Your task to perform on an android device: change text size in settings app Image 0: 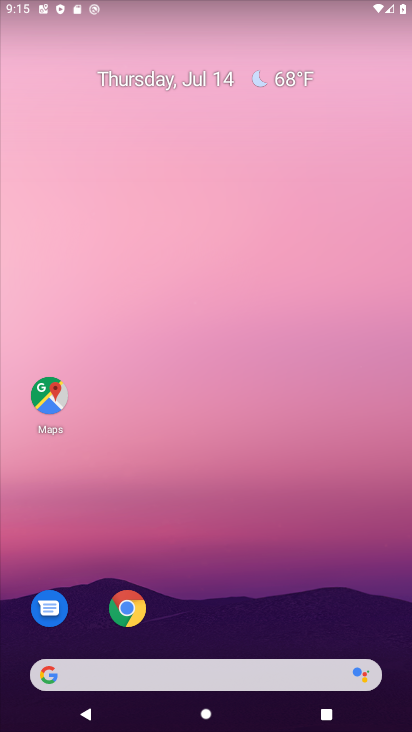
Step 0: drag from (216, 672) to (197, 59)
Your task to perform on an android device: change text size in settings app Image 1: 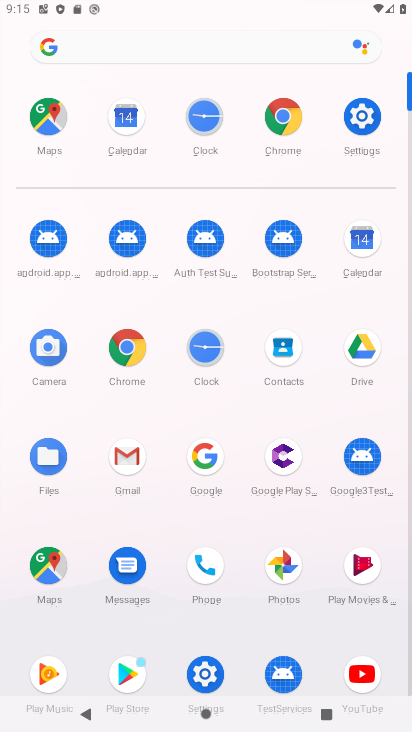
Step 1: click (201, 666)
Your task to perform on an android device: change text size in settings app Image 2: 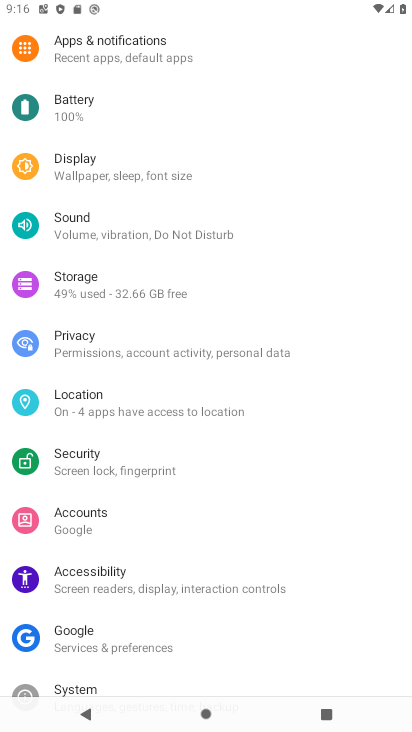
Step 2: click (92, 174)
Your task to perform on an android device: change text size in settings app Image 3: 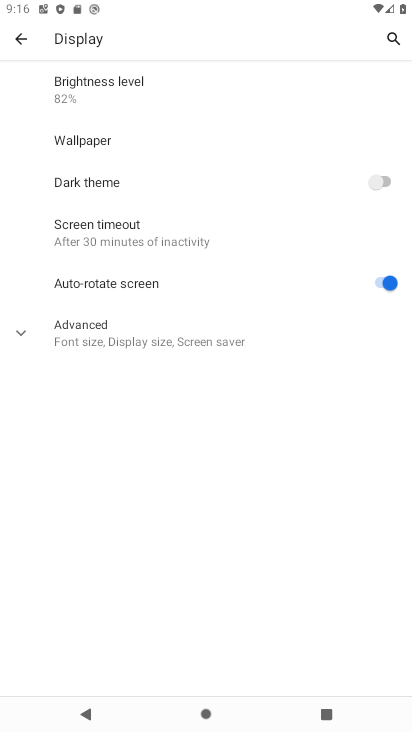
Step 3: click (95, 337)
Your task to perform on an android device: change text size in settings app Image 4: 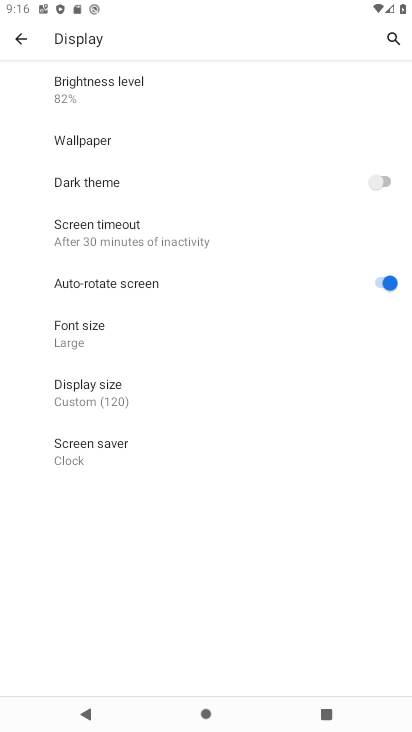
Step 4: click (92, 338)
Your task to perform on an android device: change text size in settings app Image 5: 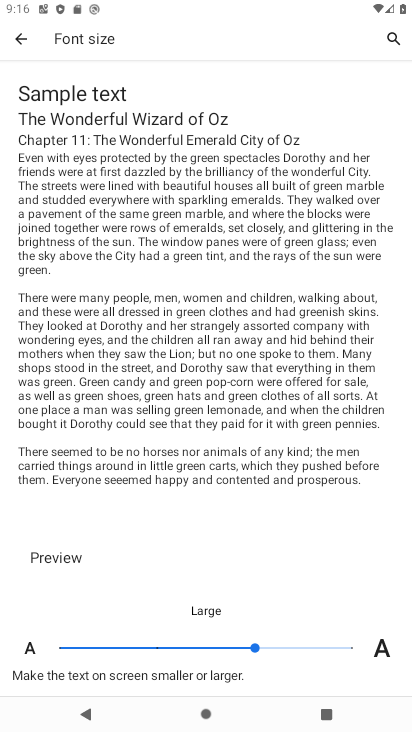
Step 5: click (346, 647)
Your task to perform on an android device: change text size in settings app Image 6: 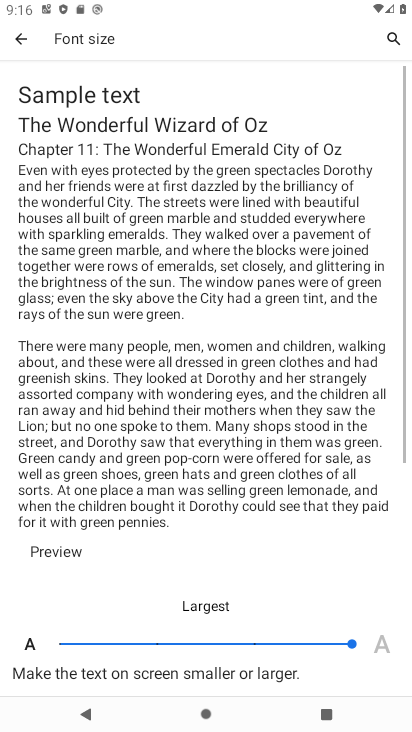
Step 6: task complete